Your task to perform on an android device: change keyboard looks Image 0: 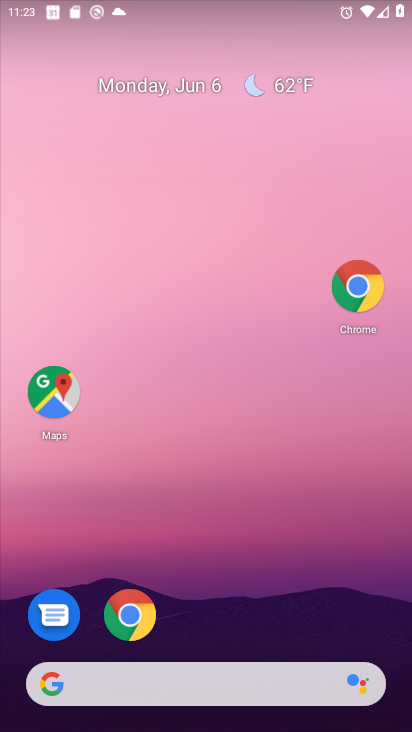
Step 0: drag from (274, 668) to (202, 141)
Your task to perform on an android device: change keyboard looks Image 1: 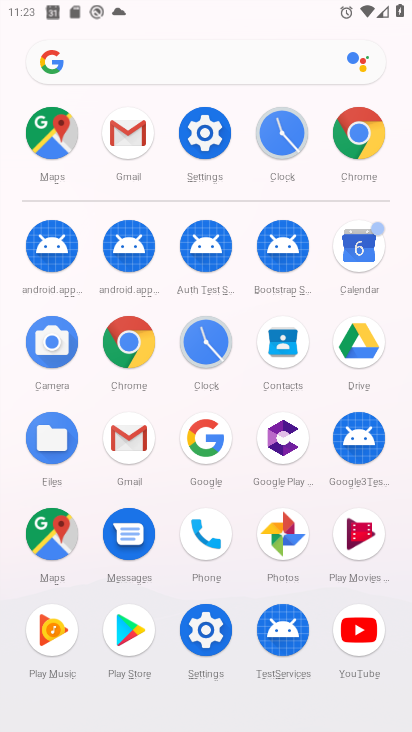
Step 1: click (219, 137)
Your task to perform on an android device: change keyboard looks Image 2: 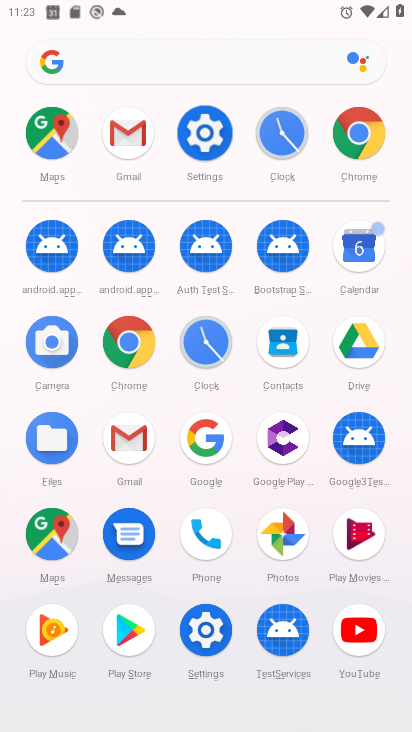
Step 2: click (219, 137)
Your task to perform on an android device: change keyboard looks Image 3: 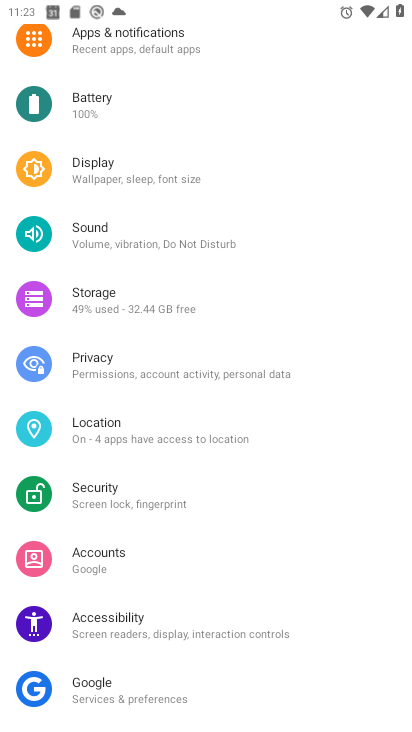
Step 3: drag from (92, 521) to (181, 154)
Your task to perform on an android device: change keyboard looks Image 4: 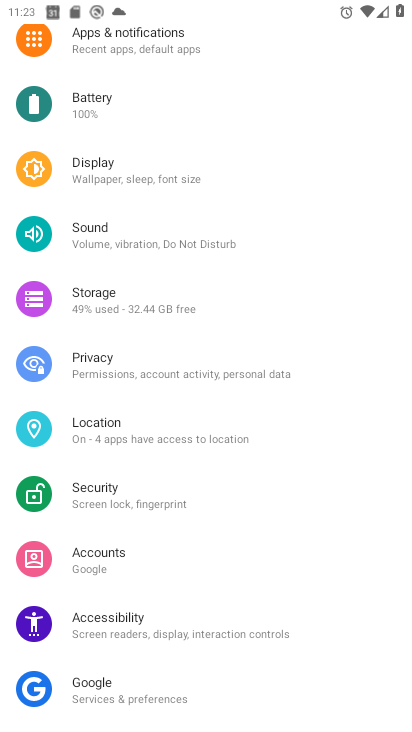
Step 4: drag from (195, 443) to (108, 88)
Your task to perform on an android device: change keyboard looks Image 5: 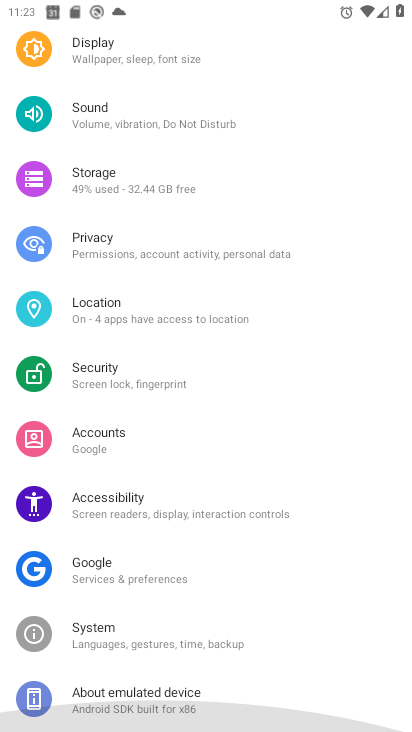
Step 5: drag from (188, 402) to (86, 96)
Your task to perform on an android device: change keyboard looks Image 6: 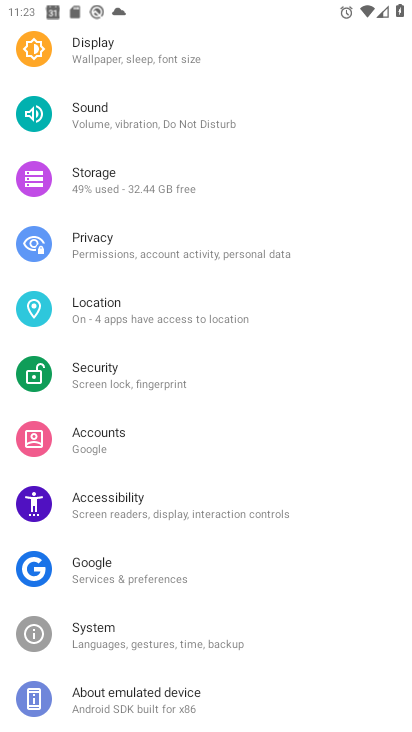
Step 6: click (103, 633)
Your task to perform on an android device: change keyboard looks Image 7: 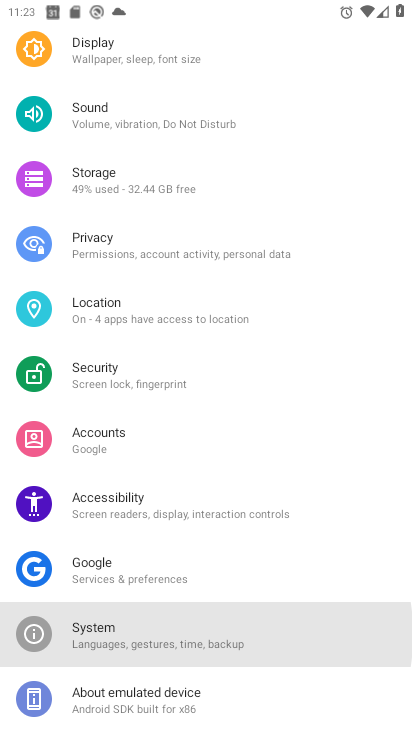
Step 7: click (97, 635)
Your task to perform on an android device: change keyboard looks Image 8: 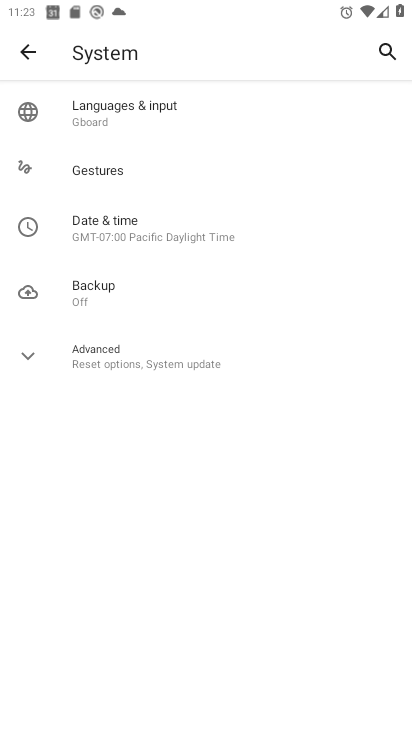
Step 8: click (96, 104)
Your task to perform on an android device: change keyboard looks Image 9: 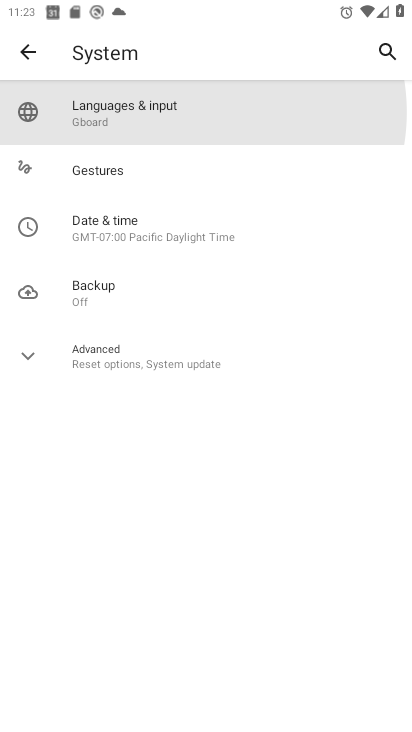
Step 9: click (96, 105)
Your task to perform on an android device: change keyboard looks Image 10: 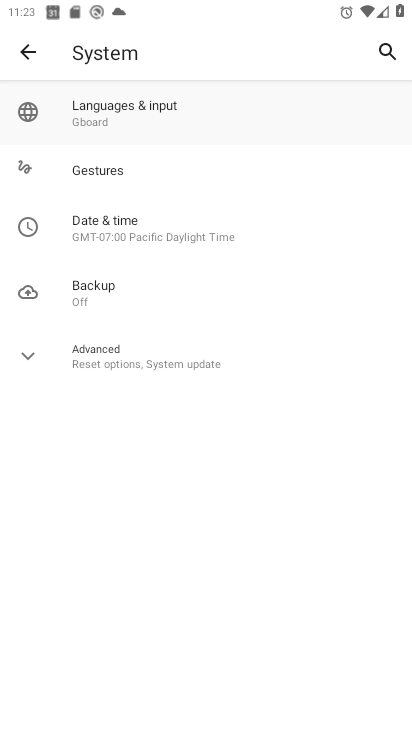
Step 10: click (97, 105)
Your task to perform on an android device: change keyboard looks Image 11: 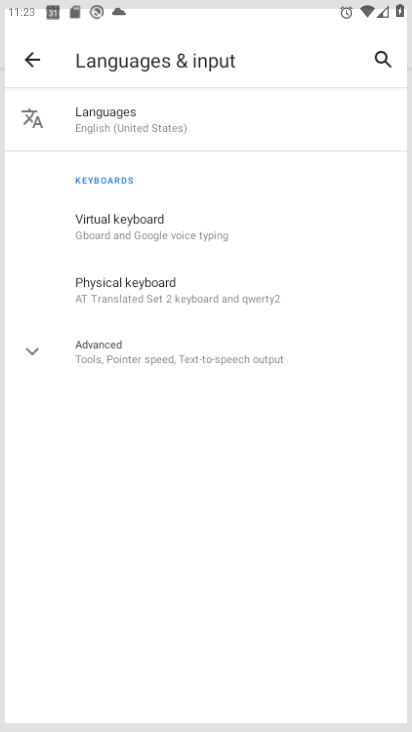
Step 11: click (99, 101)
Your task to perform on an android device: change keyboard looks Image 12: 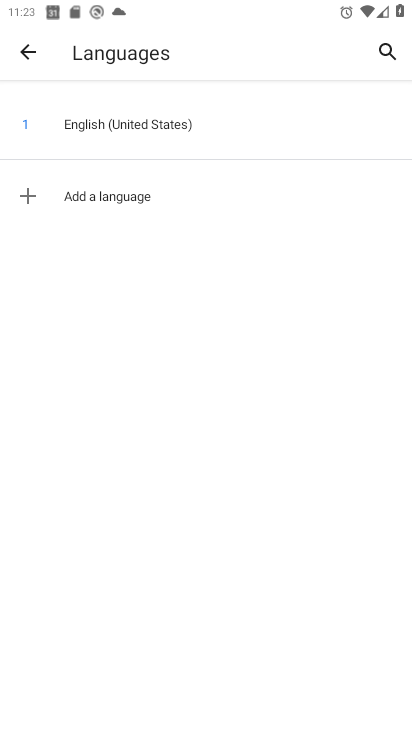
Step 12: click (29, 53)
Your task to perform on an android device: change keyboard looks Image 13: 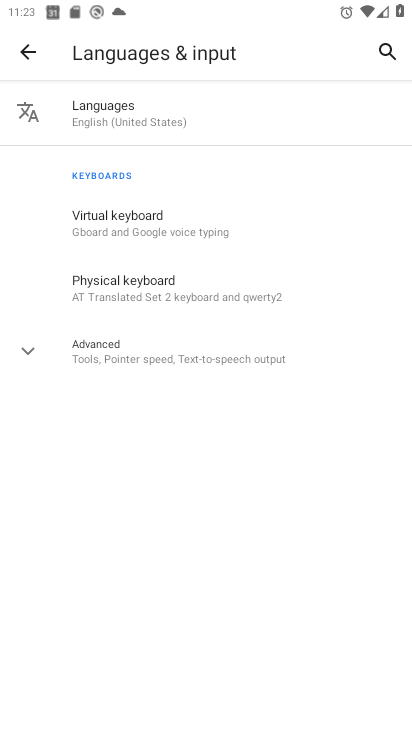
Step 13: click (115, 218)
Your task to perform on an android device: change keyboard looks Image 14: 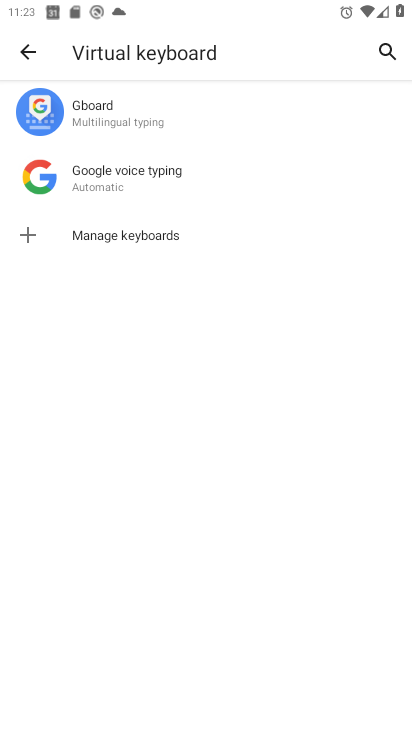
Step 14: click (107, 100)
Your task to perform on an android device: change keyboard looks Image 15: 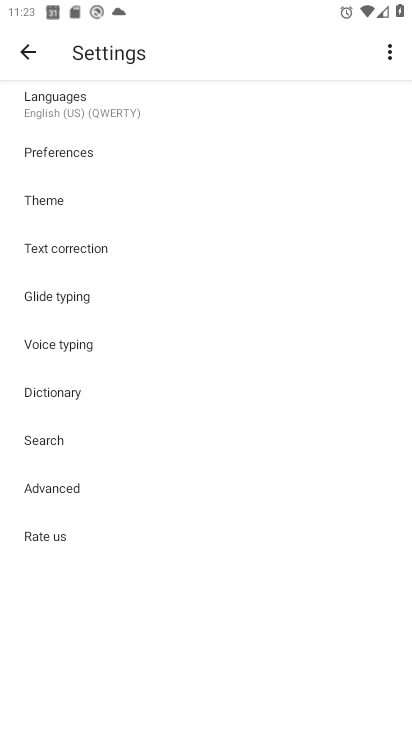
Step 15: click (39, 200)
Your task to perform on an android device: change keyboard looks Image 16: 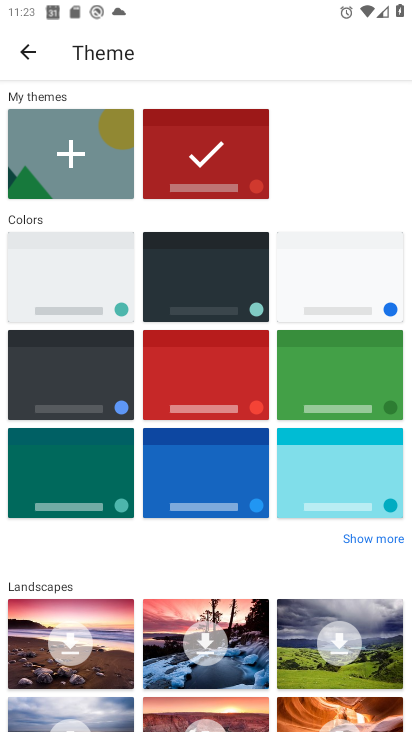
Step 16: click (198, 370)
Your task to perform on an android device: change keyboard looks Image 17: 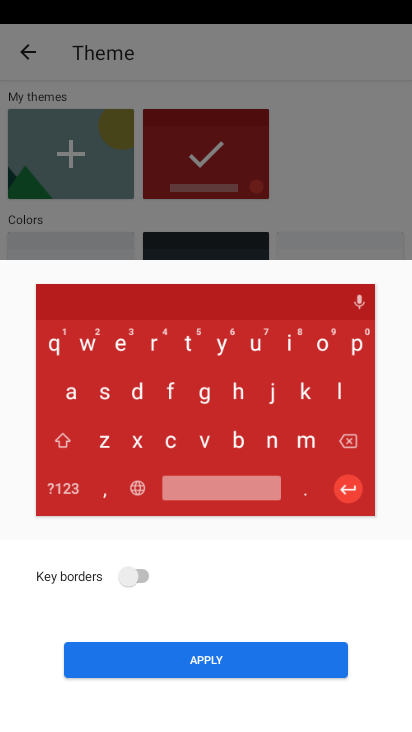
Step 17: click (232, 665)
Your task to perform on an android device: change keyboard looks Image 18: 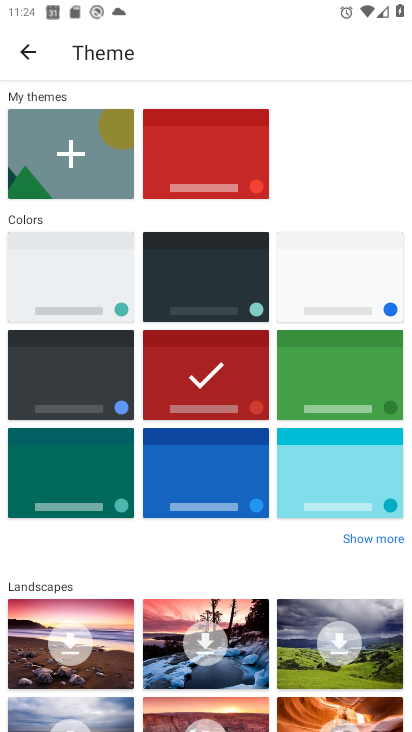
Step 18: task complete